Your task to perform on an android device: turn on notifications settings in the gmail app Image 0: 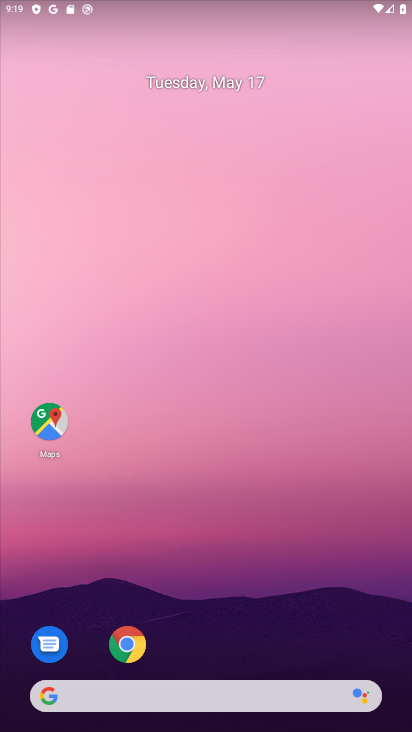
Step 0: drag from (227, 611) to (333, 3)
Your task to perform on an android device: turn on notifications settings in the gmail app Image 1: 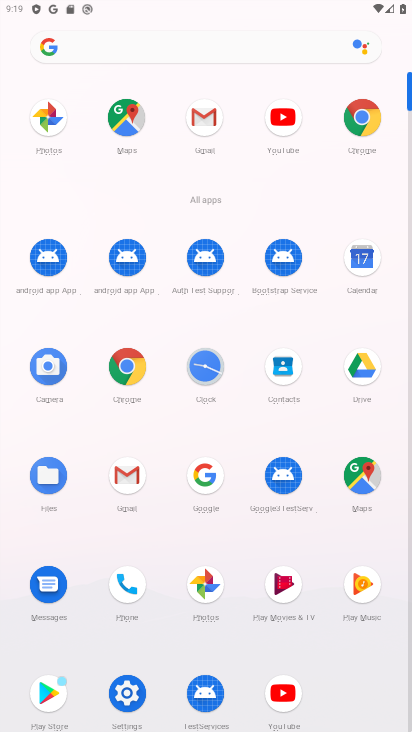
Step 1: click (131, 695)
Your task to perform on an android device: turn on notifications settings in the gmail app Image 2: 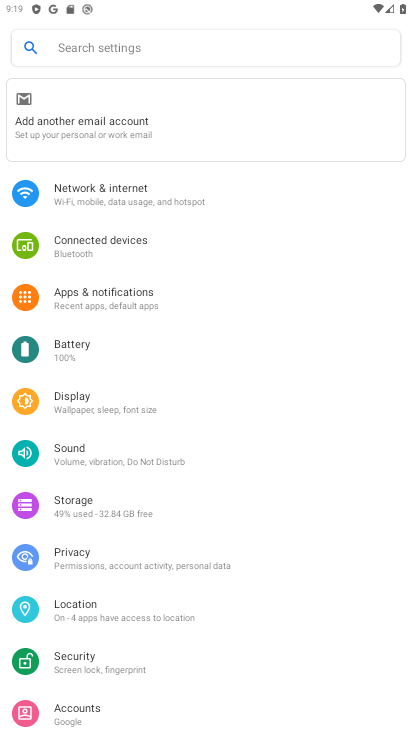
Step 2: click (93, 291)
Your task to perform on an android device: turn on notifications settings in the gmail app Image 3: 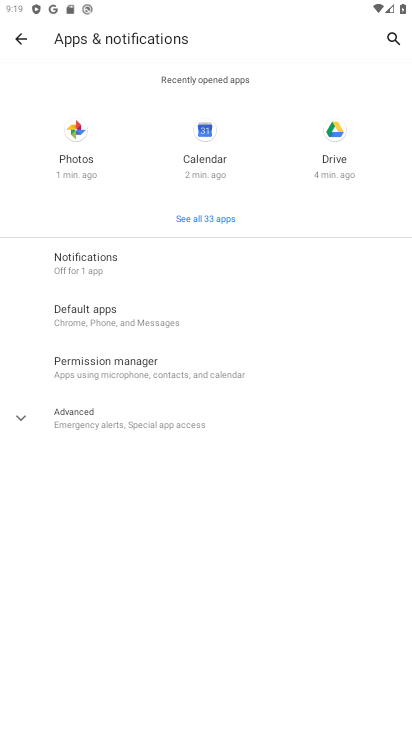
Step 3: click (209, 218)
Your task to perform on an android device: turn on notifications settings in the gmail app Image 4: 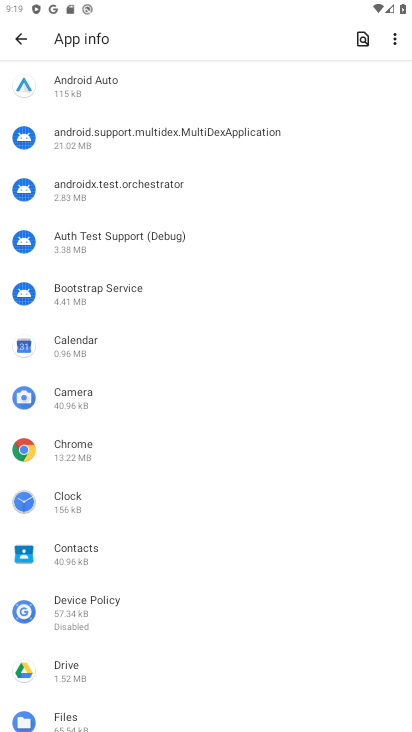
Step 4: drag from (143, 640) to (240, 258)
Your task to perform on an android device: turn on notifications settings in the gmail app Image 5: 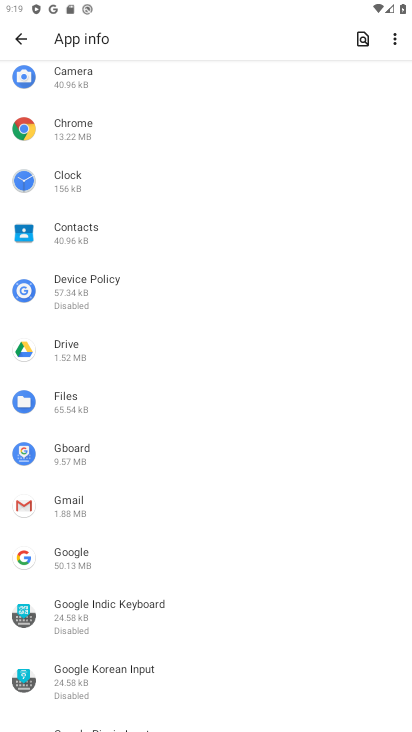
Step 5: click (58, 503)
Your task to perform on an android device: turn on notifications settings in the gmail app Image 6: 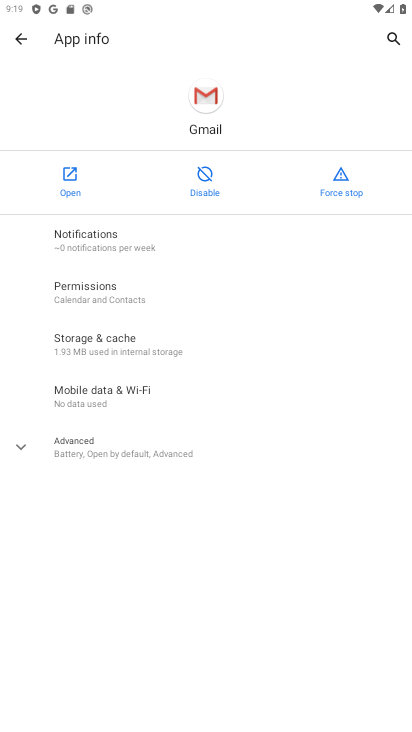
Step 6: click (183, 241)
Your task to perform on an android device: turn on notifications settings in the gmail app Image 7: 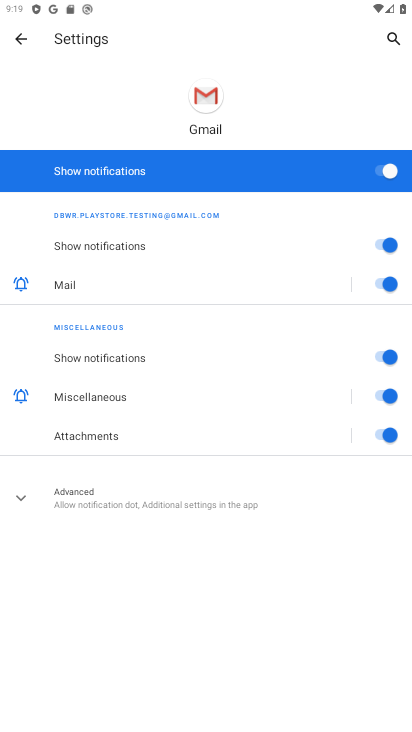
Step 7: task complete